Your task to perform on an android device: turn off location history Image 0: 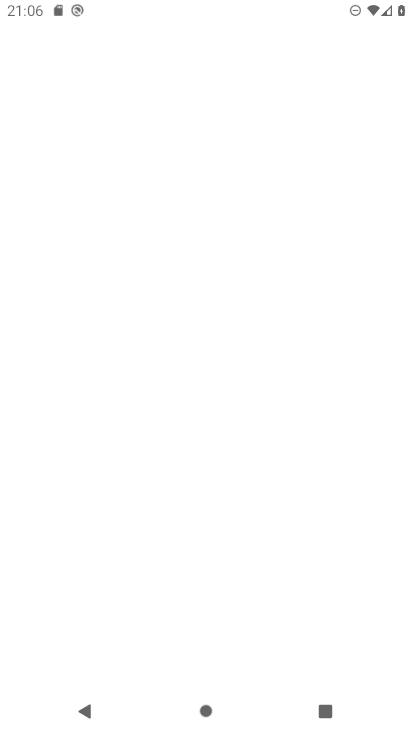
Step 0: drag from (381, 636) to (410, 583)
Your task to perform on an android device: turn off location history Image 1: 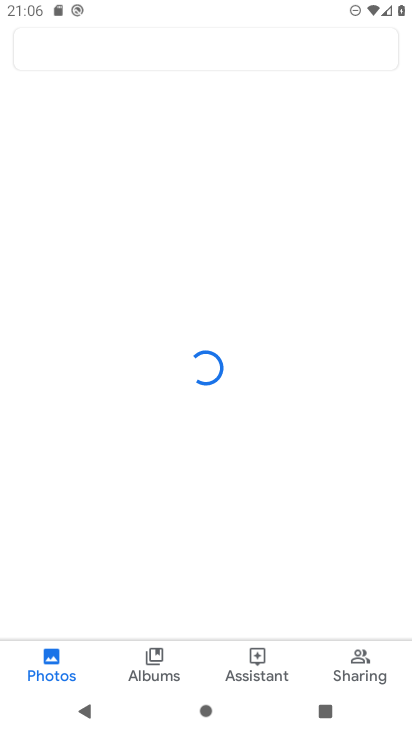
Step 1: press home button
Your task to perform on an android device: turn off location history Image 2: 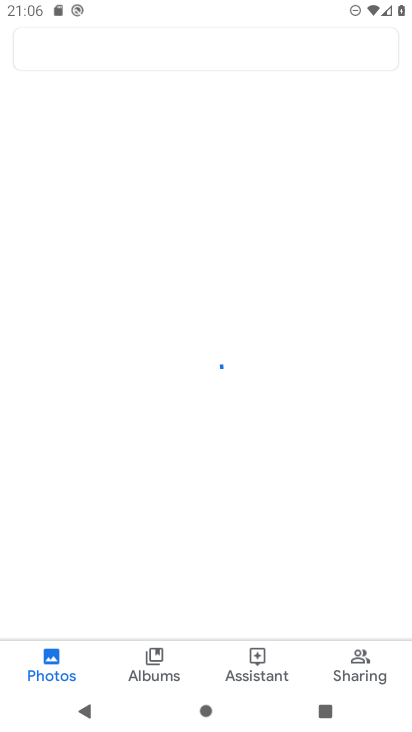
Step 2: click (410, 583)
Your task to perform on an android device: turn off location history Image 3: 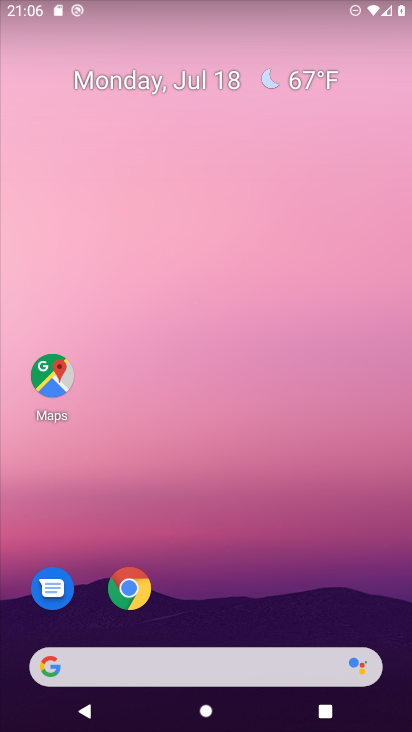
Step 3: click (50, 376)
Your task to perform on an android device: turn off location history Image 4: 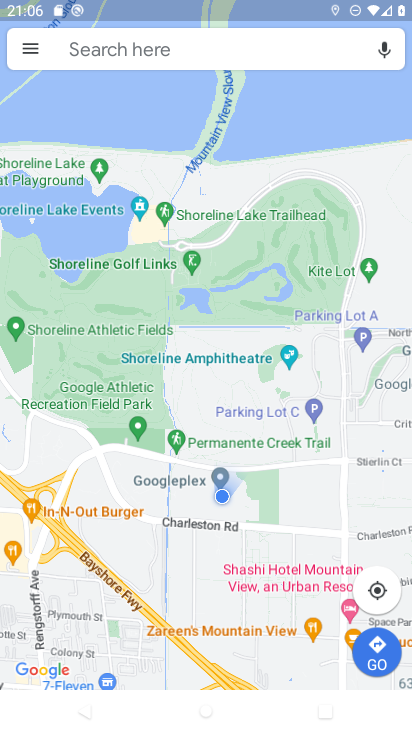
Step 4: click (25, 48)
Your task to perform on an android device: turn off location history Image 5: 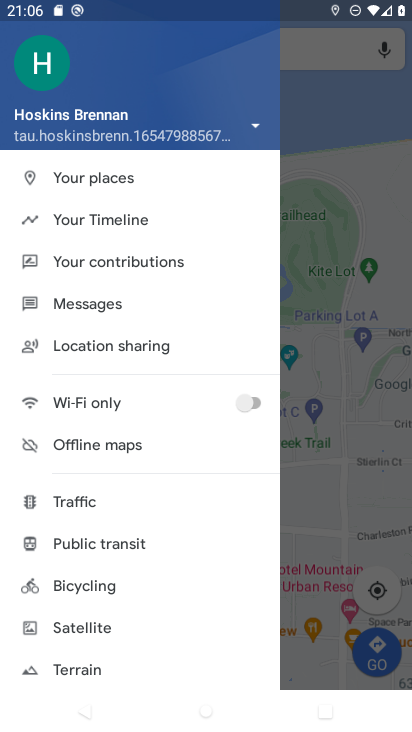
Step 5: drag from (164, 633) to (183, 223)
Your task to perform on an android device: turn off location history Image 6: 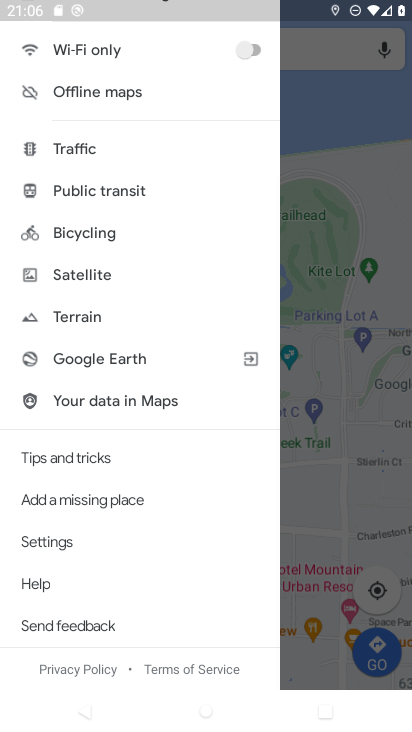
Step 6: click (54, 537)
Your task to perform on an android device: turn off location history Image 7: 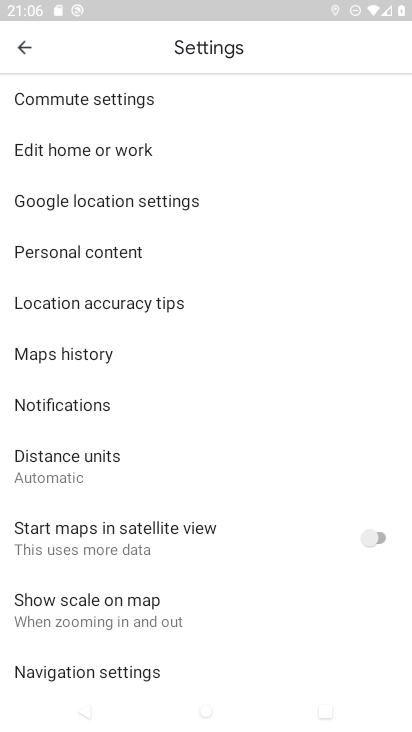
Step 7: click (64, 253)
Your task to perform on an android device: turn off location history Image 8: 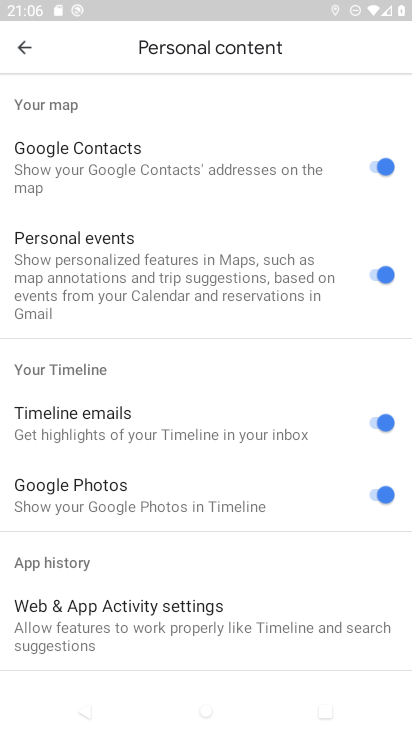
Step 8: drag from (239, 561) to (229, 174)
Your task to perform on an android device: turn off location history Image 9: 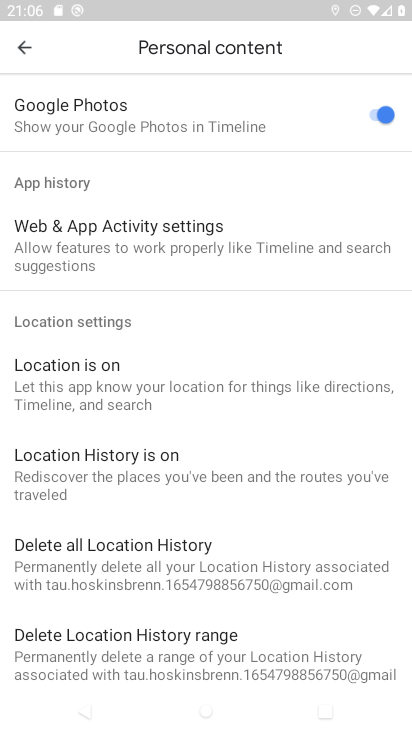
Step 9: click (69, 462)
Your task to perform on an android device: turn off location history Image 10: 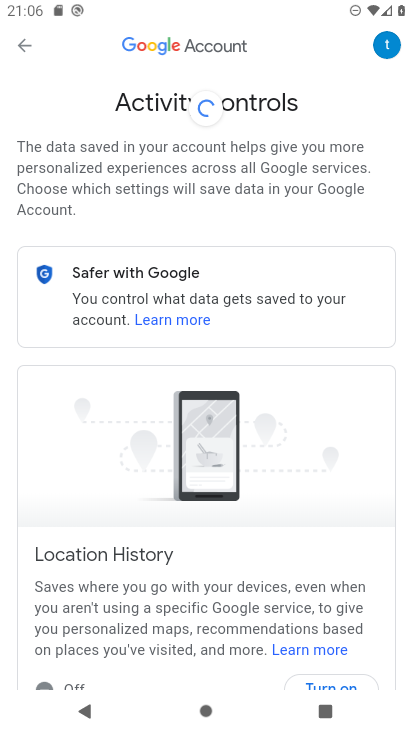
Step 10: task complete